Your task to perform on an android device: Search for panasonic triple a on amazon, select the first entry, and add it to the cart. Image 0: 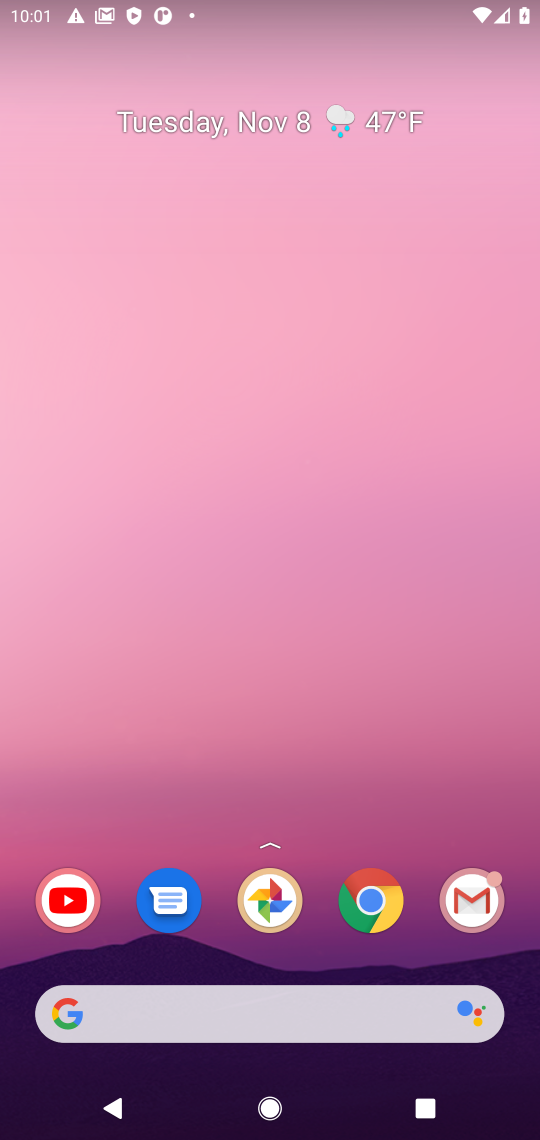
Step 0: click (384, 904)
Your task to perform on an android device: Search for panasonic triple a on amazon, select the first entry, and add it to the cart. Image 1: 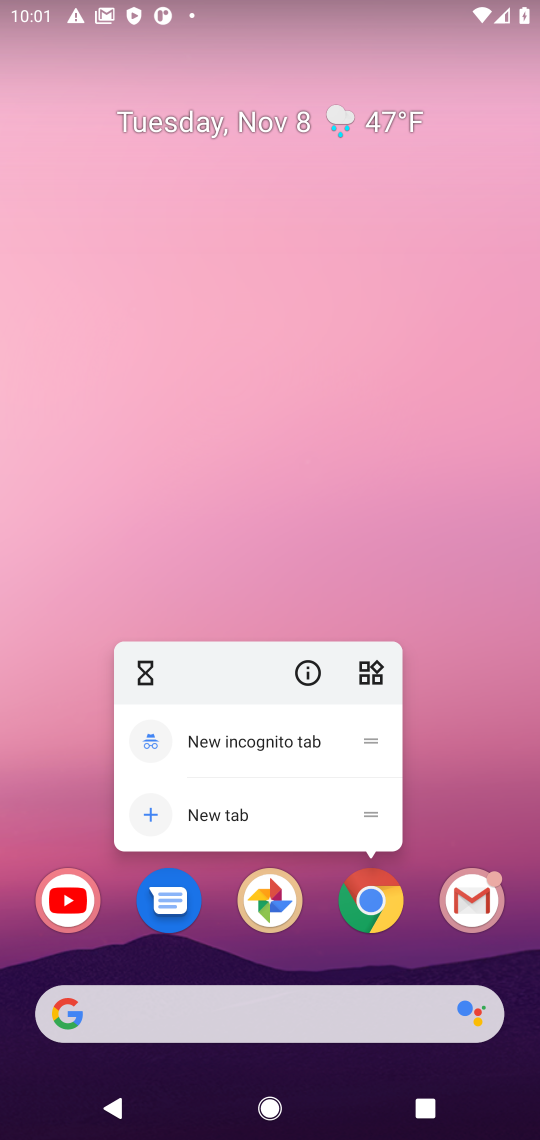
Step 1: click (384, 904)
Your task to perform on an android device: Search for panasonic triple a on amazon, select the first entry, and add it to the cart. Image 2: 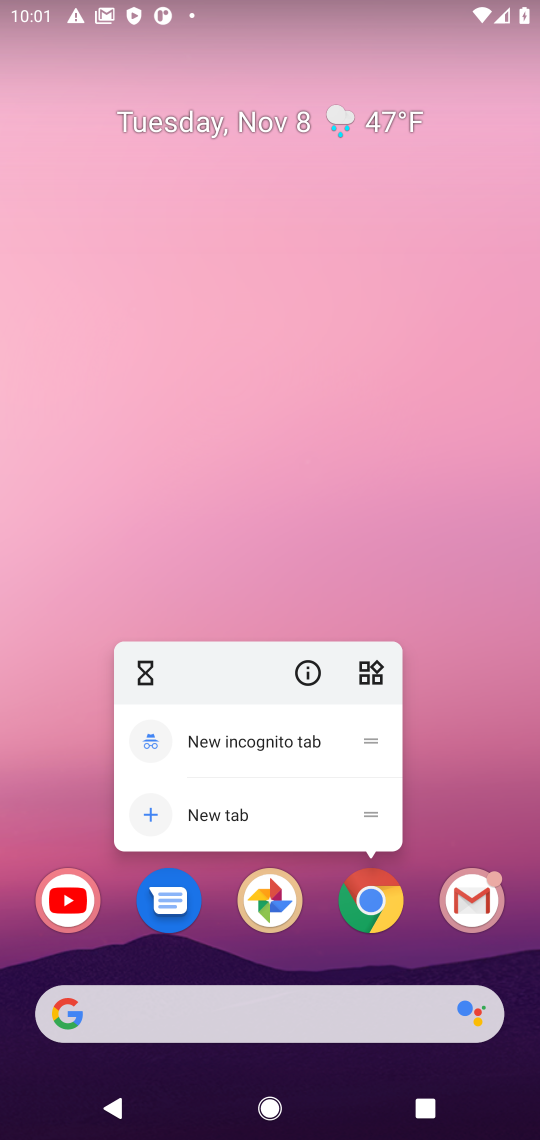
Step 2: click (384, 904)
Your task to perform on an android device: Search for panasonic triple a on amazon, select the first entry, and add it to the cart. Image 3: 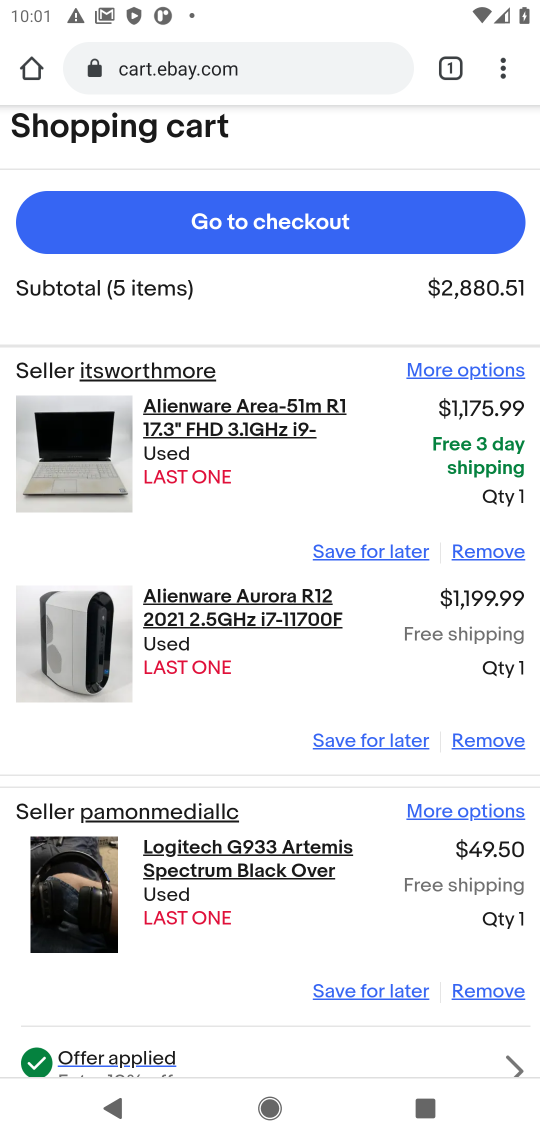
Step 3: click (153, 67)
Your task to perform on an android device: Search for panasonic triple a on amazon, select the first entry, and add it to the cart. Image 4: 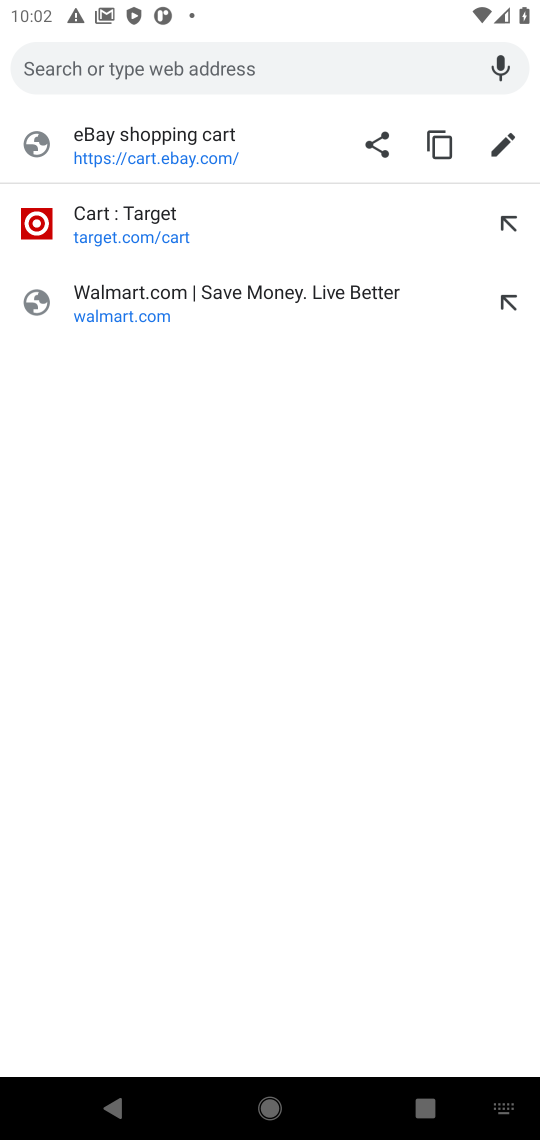
Step 4: type "amazon"
Your task to perform on an android device: Search for panasonic triple a on amazon, select the first entry, and add it to the cart. Image 5: 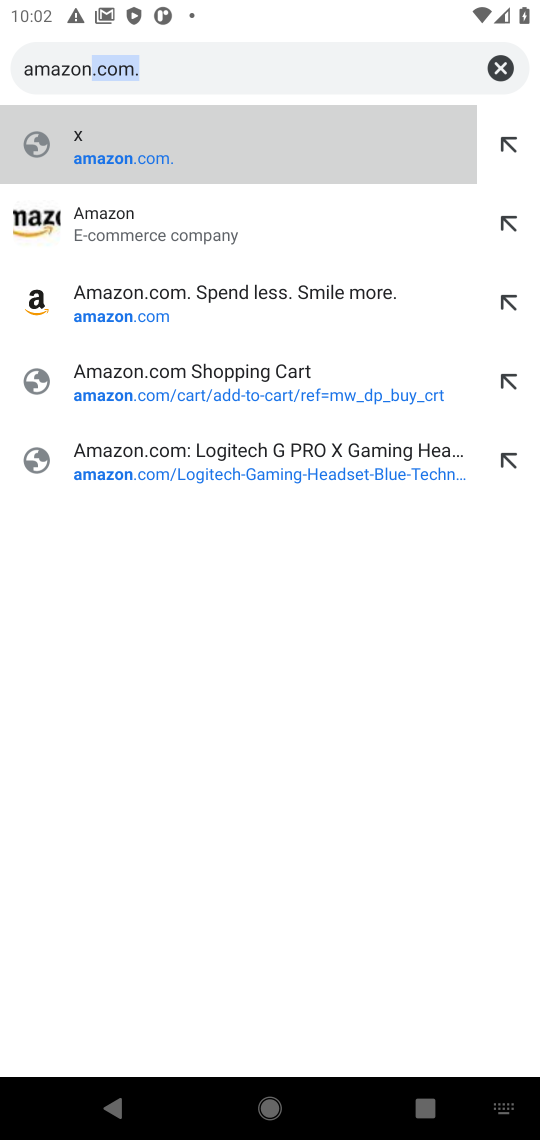
Step 5: type ""
Your task to perform on an android device: Search for panasonic triple a on amazon, select the first entry, and add it to the cart. Image 6: 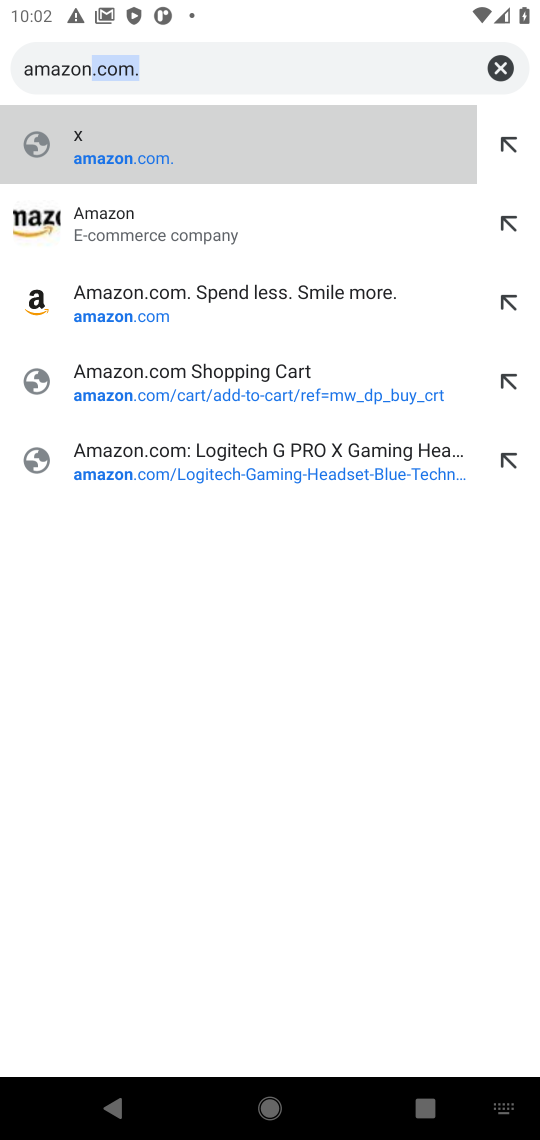
Step 6: click (104, 226)
Your task to perform on an android device: Search for panasonic triple a on amazon, select the first entry, and add it to the cart. Image 7: 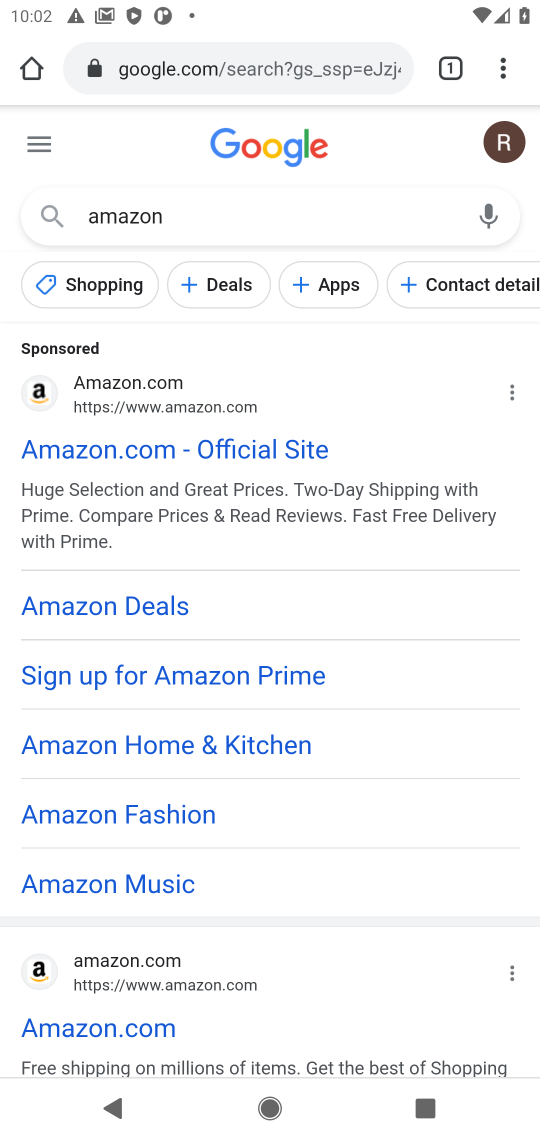
Step 7: click (162, 448)
Your task to perform on an android device: Search for panasonic triple a on amazon, select the first entry, and add it to the cart. Image 8: 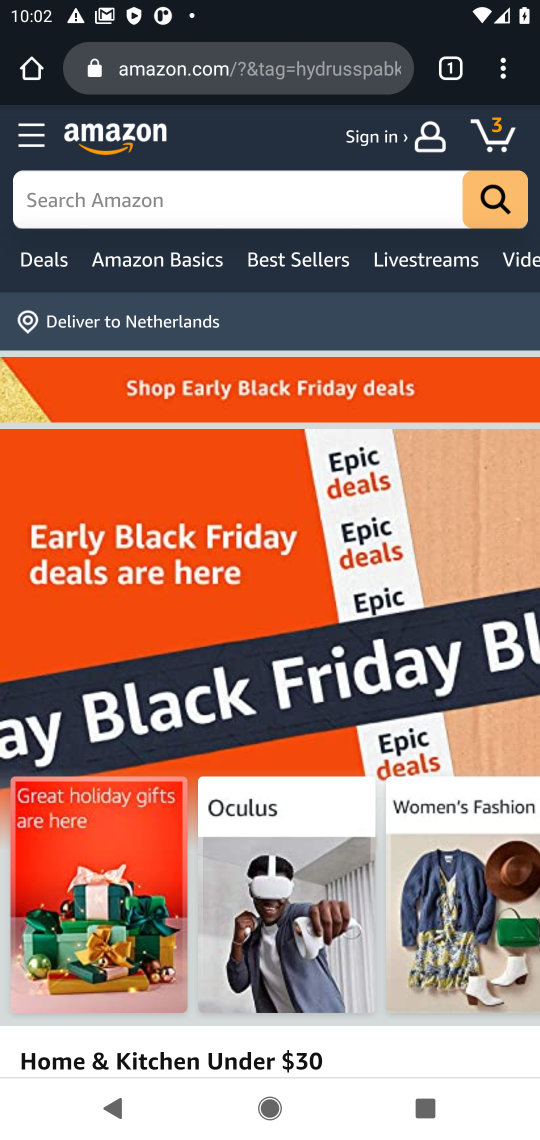
Step 8: click (169, 196)
Your task to perform on an android device: Search for panasonic triple a on amazon, select the first entry, and add it to the cart. Image 9: 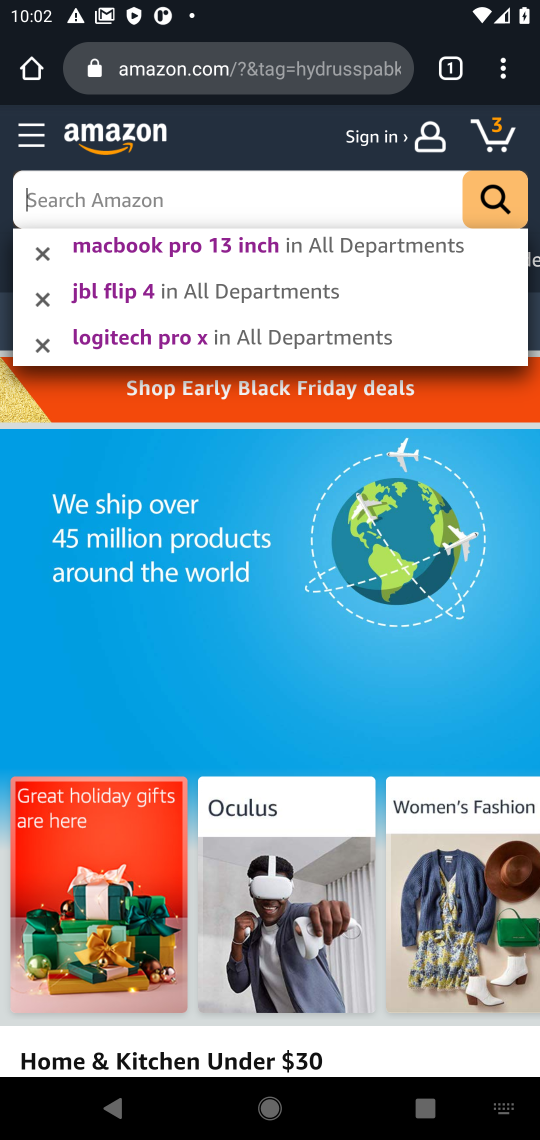
Step 9: type "panasonic triple"
Your task to perform on an android device: Search for panasonic triple a on amazon, select the first entry, and add it to the cart. Image 10: 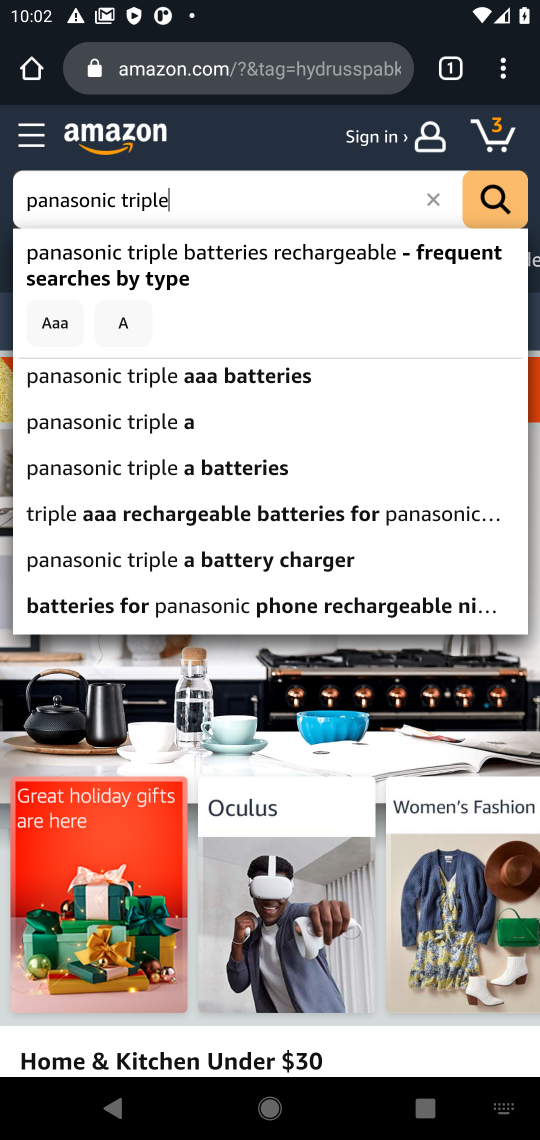
Step 10: click (130, 369)
Your task to perform on an android device: Search for panasonic triple a on amazon, select the first entry, and add it to the cart. Image 11: 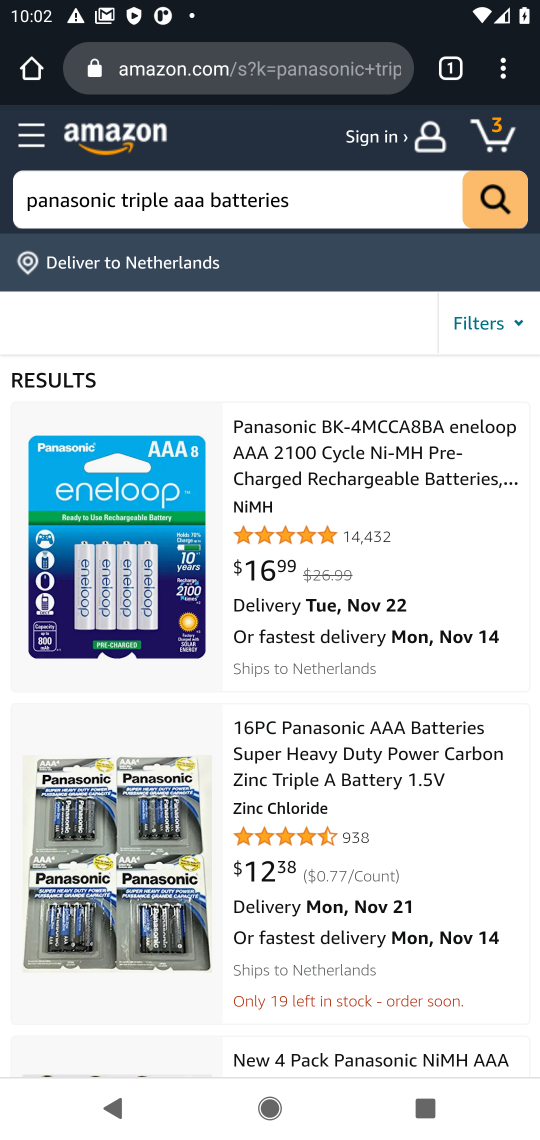
Step 11: click (158, 859)
Your task to perform on an android device: Search for panasonic triple a on amazon, select the first entry, and add it to the cart. Image 12: 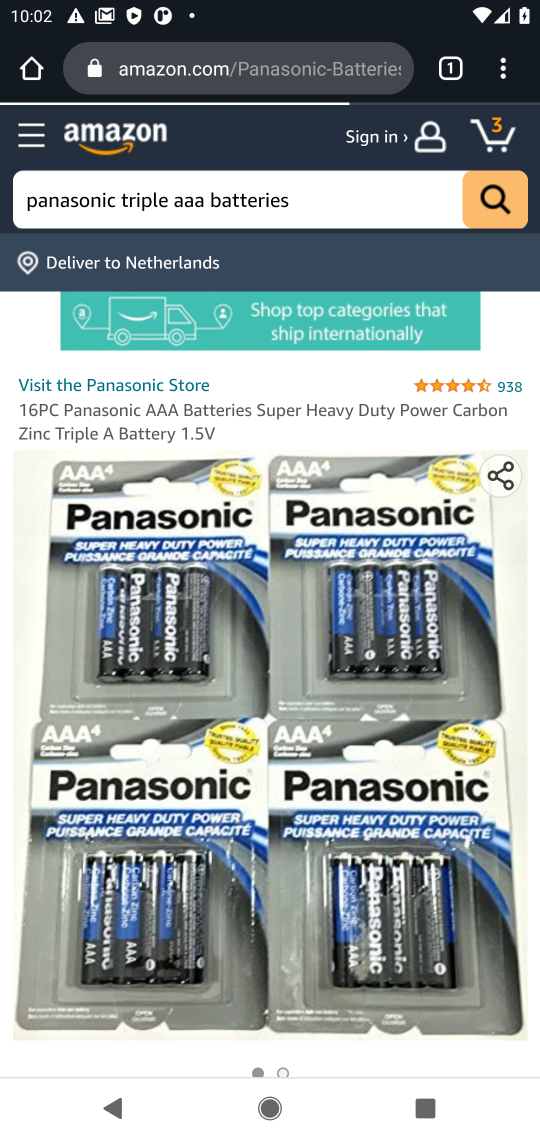
Step 12: drag from (176, 915) to (270, 385)
Your task to perform on an android device: Search for panasonic triple a on amazon, select the first entry, and add it to the cart. Image 13: 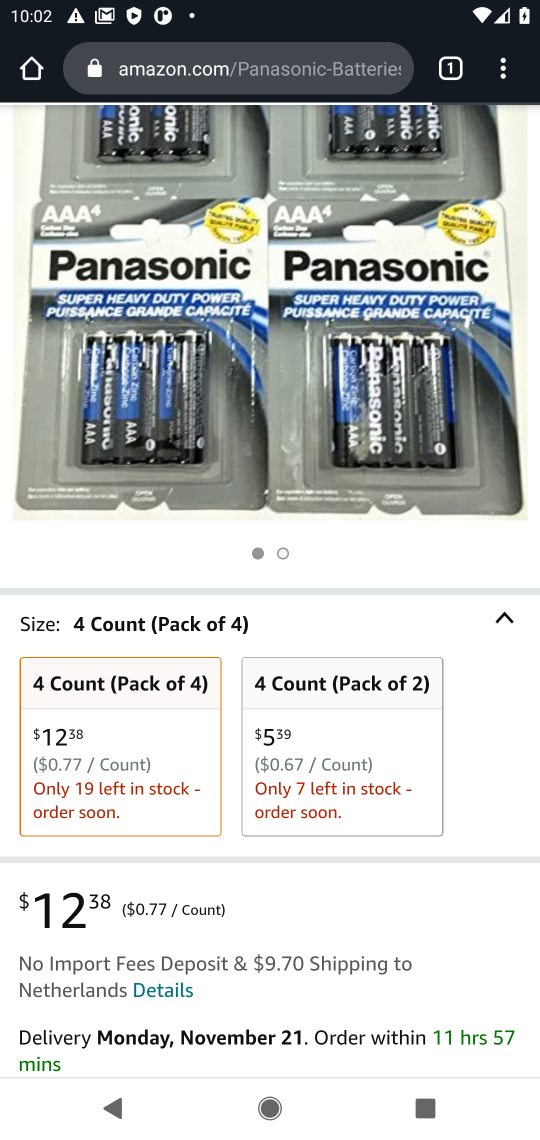
Step 13: drag from (210, 890) to (260, 346)
Your task to perform on an android device: Search for panasonic triple a on amazon, select the first entry, and add it to the cart. Image 14: 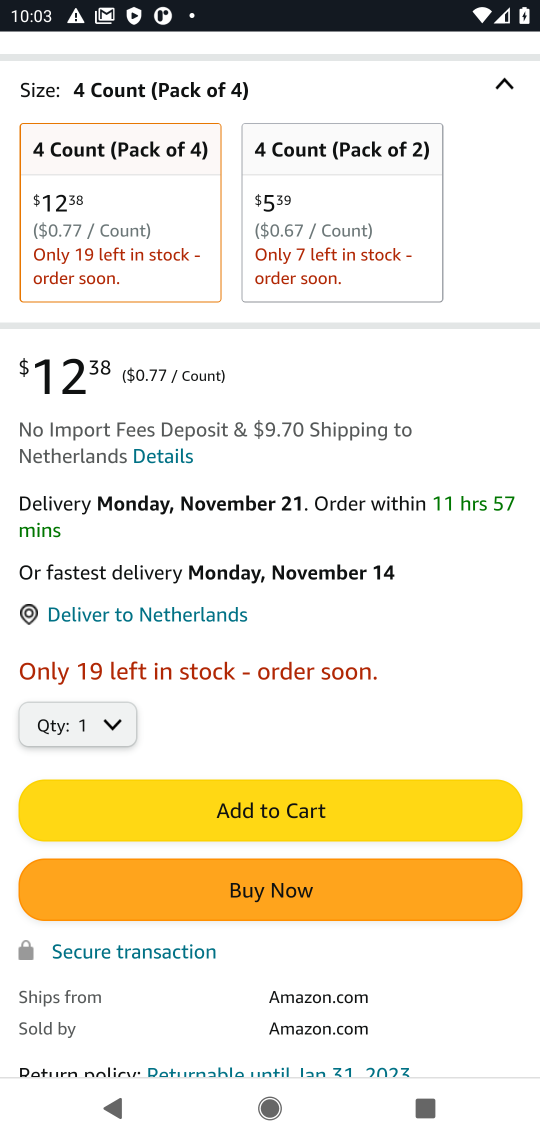
Step 14: click (356, 798)
Your task to perform on an android device: Search for panasonic triple a on amazon, select the first entry, and add it to the cart. Image 15: 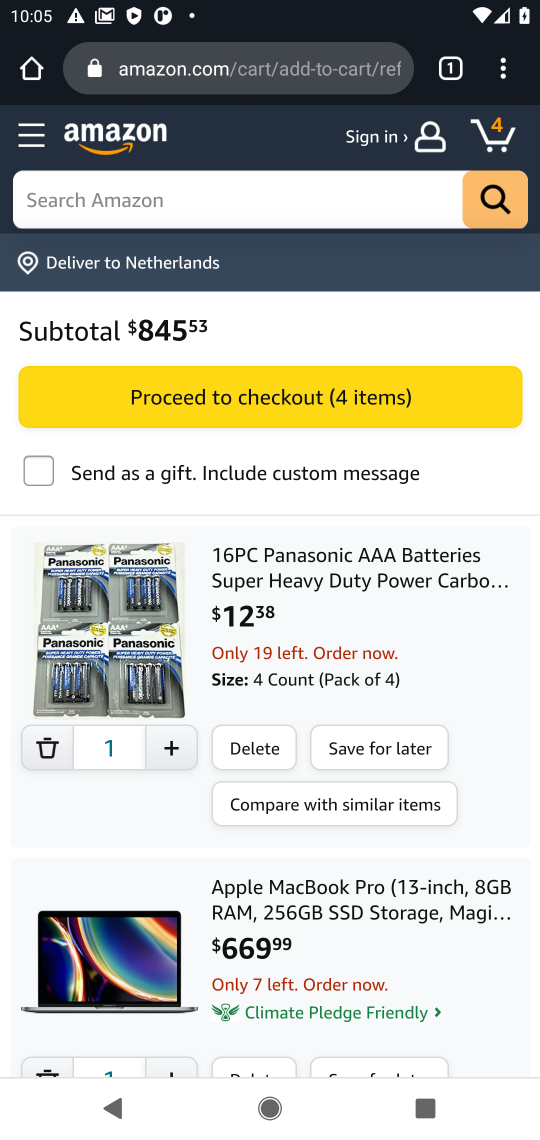
Step 15: click (317, 573)
Your task to perform on an android device: Search for panasonic triple a on amazon, select the first entry, and add it to the cart. Image 16: 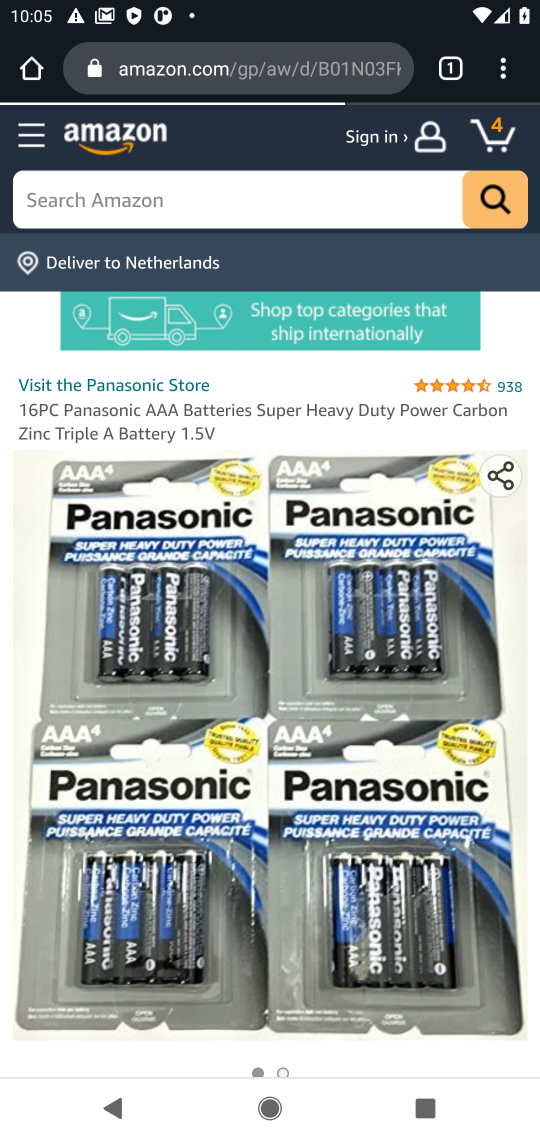
Step 16: task complete